Your task to perform on an android device: open app "Google Play services" Image 0: 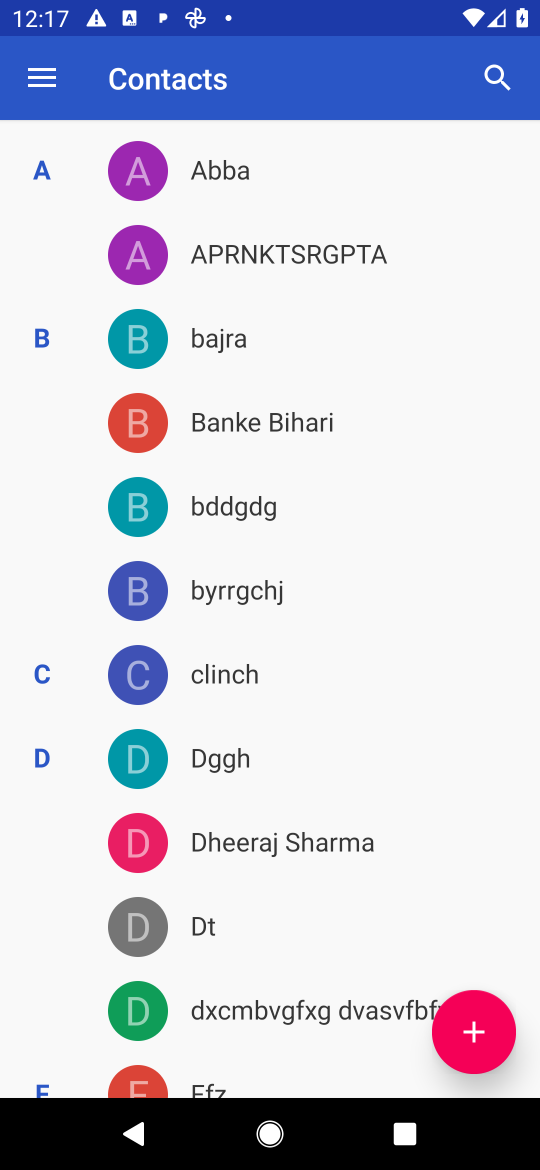
Step 0: press home button
Your task to perform on an android device: open app "Google Play services" Image 1: 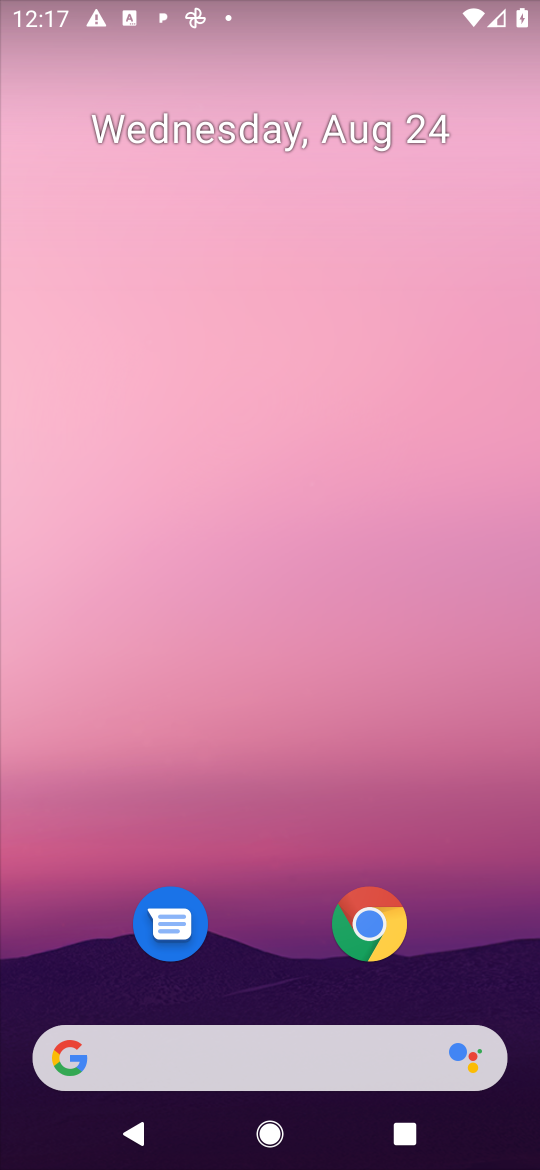
Step 1: drag from (466, 961) to (472, 197)
Your task to perform on an android device: open app "Google Play services" Image 2: 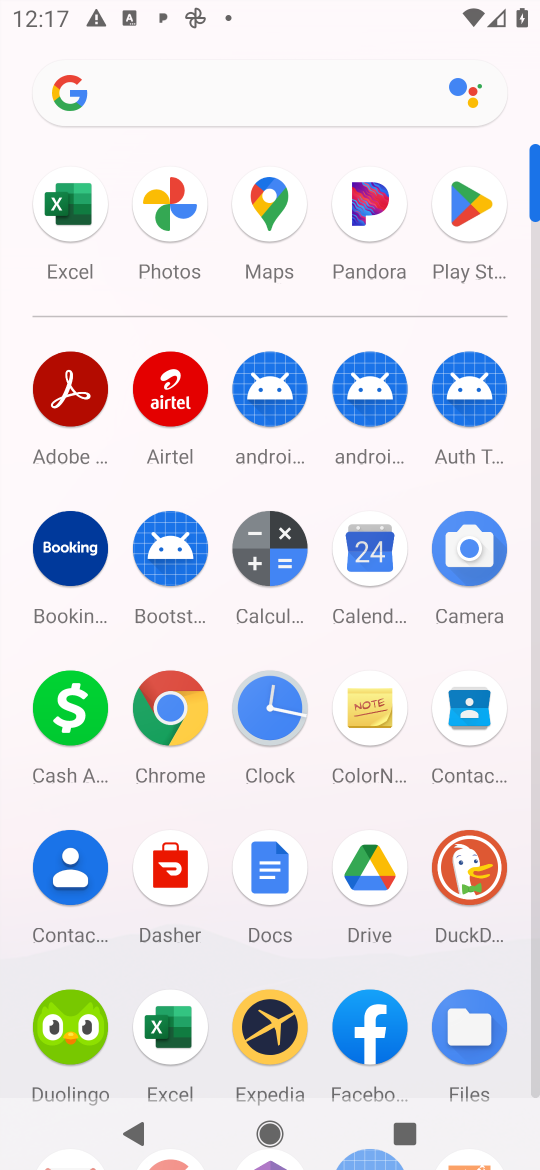
Step 2: click (468, 214)
Your task to perform on an android device: open app "Google Play services" Image 3: 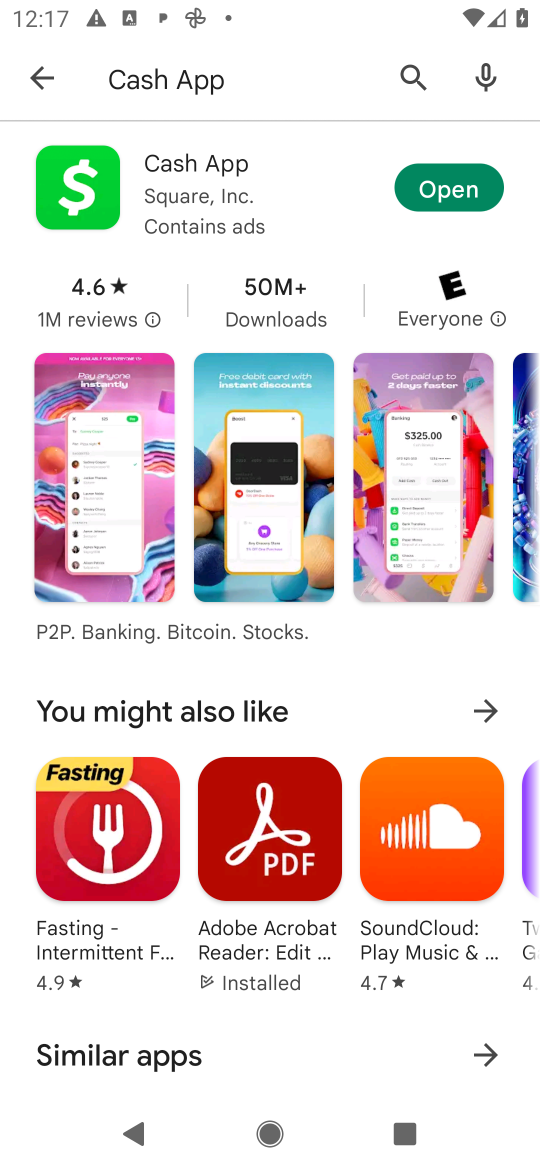
Step 3: press back button
Your task to perform on an android device: open app "Google Play services" Image 4: 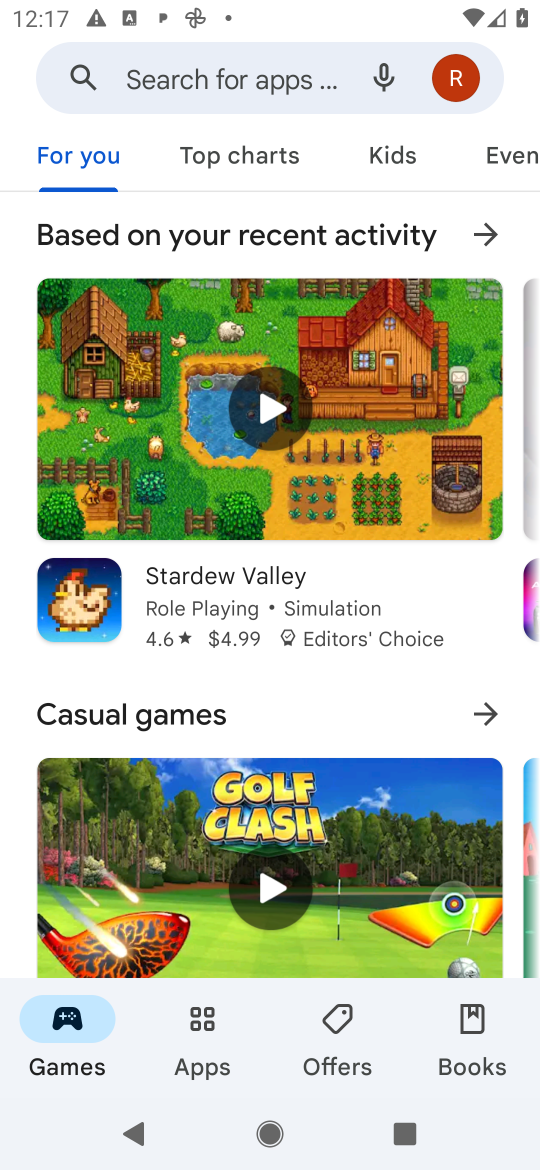
Step 4: click (246, 89)
Your task to perform on an android device: open app "Google Play services" Image 5: 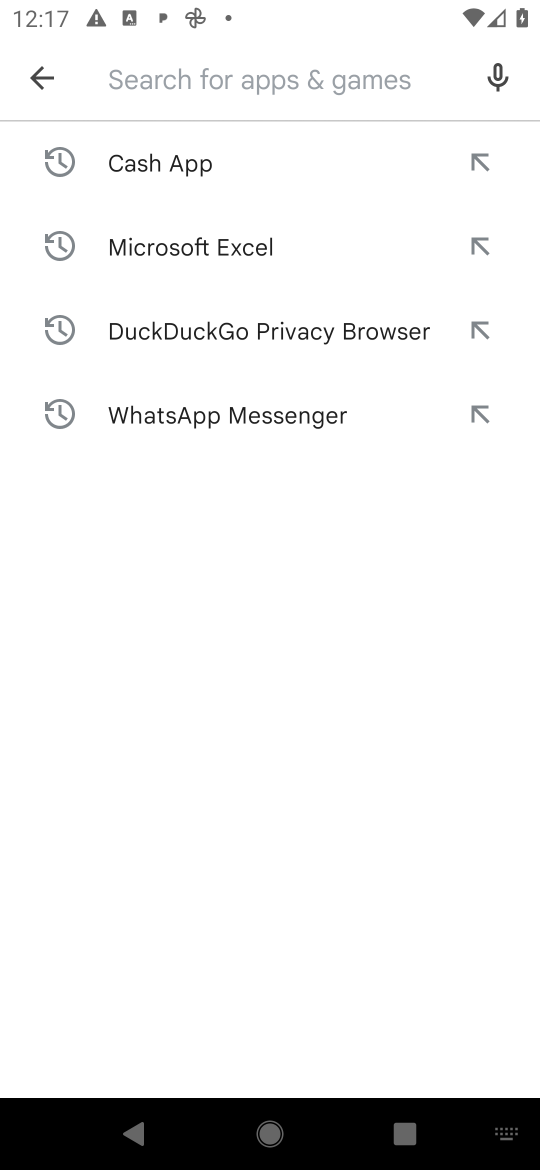
Step 5: press enter
Your task to perform on an android device: open app "Google Play services" Image 6: 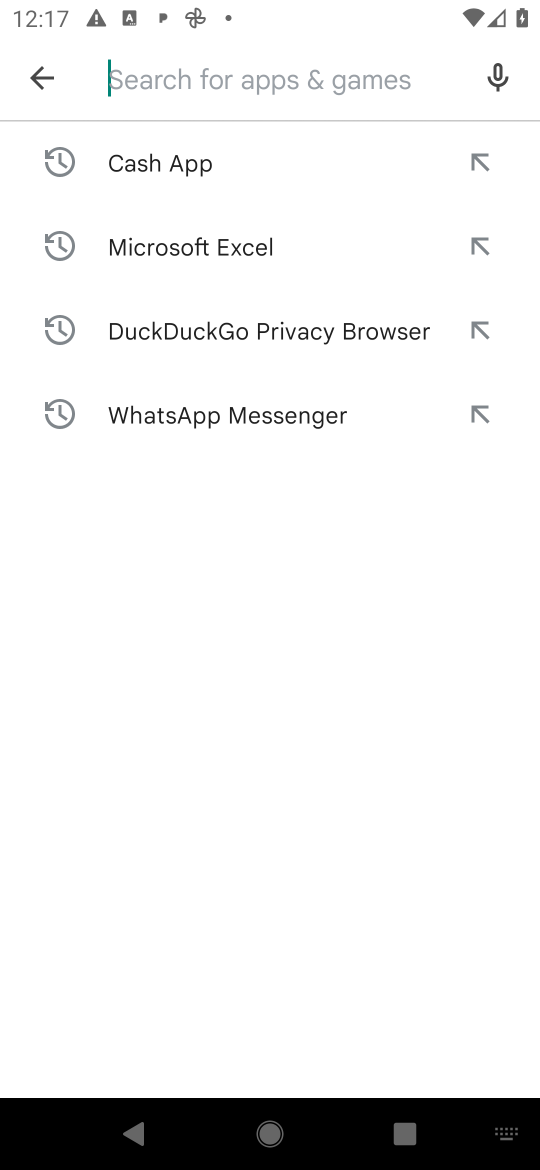
Step 6: type "Google Play services"
Your task to perform on an android device: open app "Google Play services" Image 7: 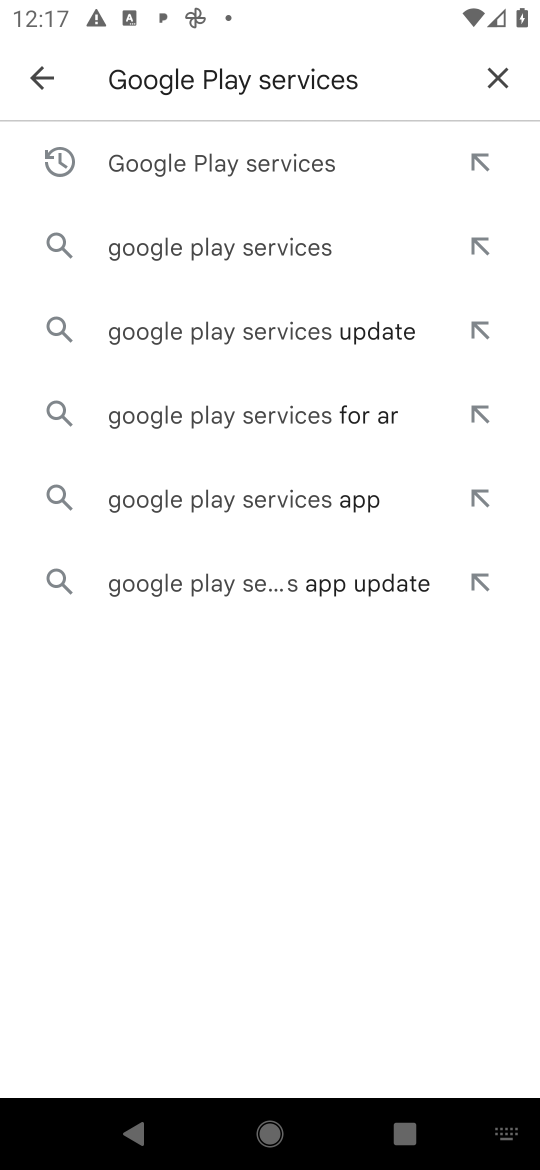
Step 7: click (253, 159)
Your task to perform on an android device: open app "Google Play services" Image 8: 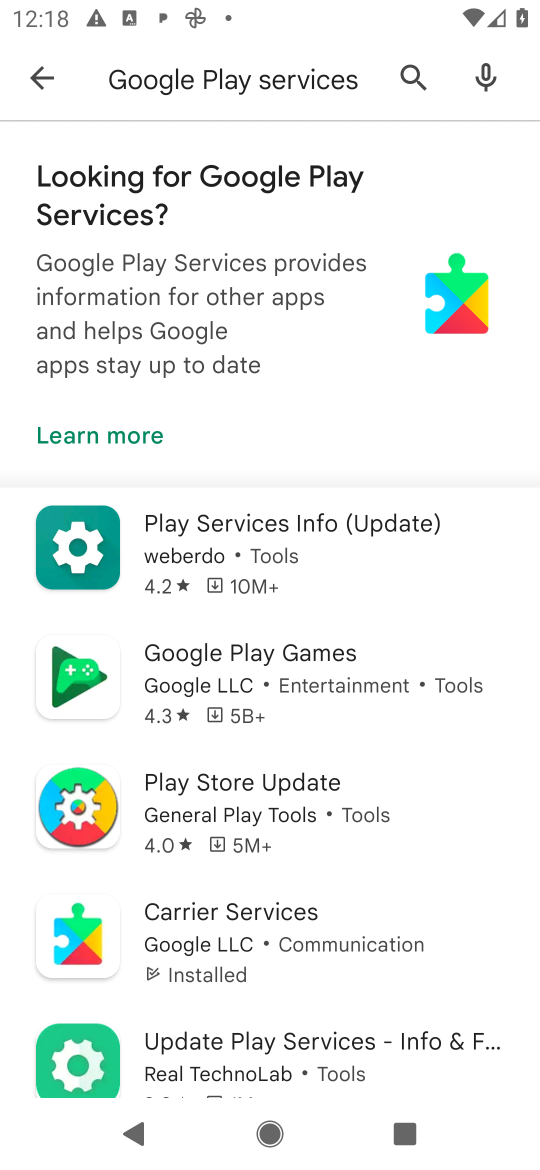
Step 8: task complete